Your task to perform on an android device: Go to battery settings Image 0: 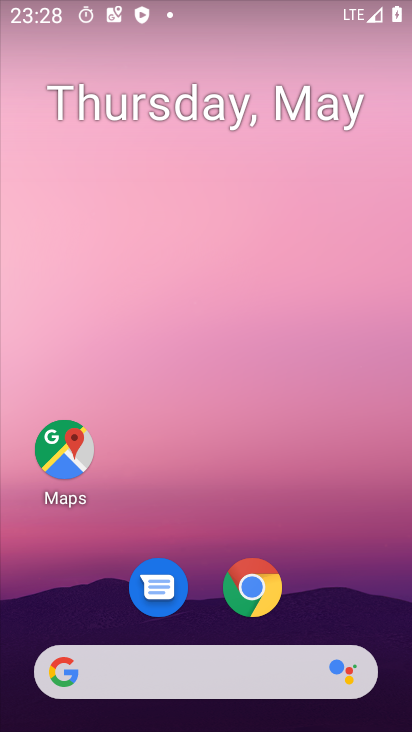
Step 0: drag from (342, 638) to (362, 33)
Your task to perform on an android device: Go to battery settings Image 1: 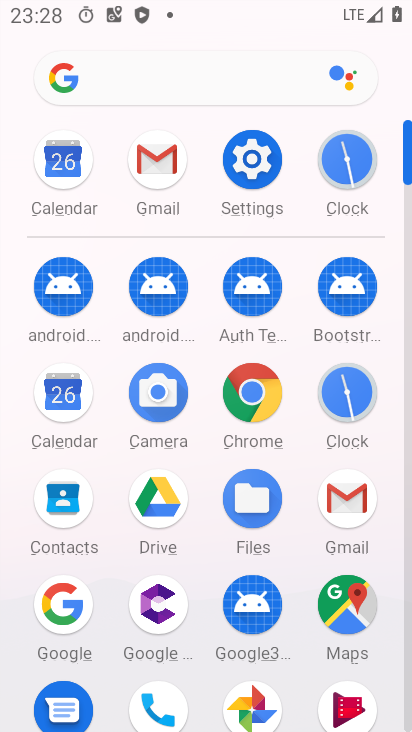
Step 1: click (253, 163)
Your task to perform on an android device: Go to battery settings Image 2: 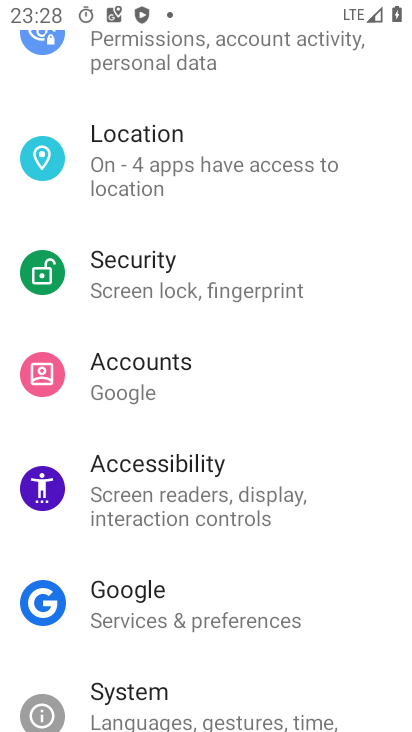
Step 2: drag from (243, 286) to (243, 549)
Your task to perform on an android device: Go to battery settings Image 3: 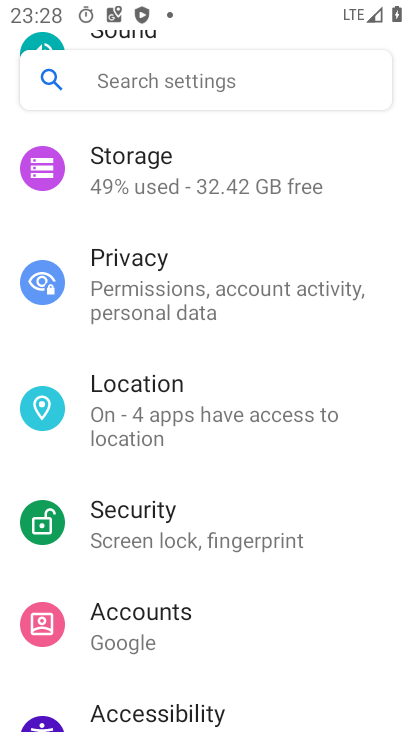
Step 3: drag from (226, 300) to (245, 539)
Your task to perform on an android device: Go to battery settings Image 4: 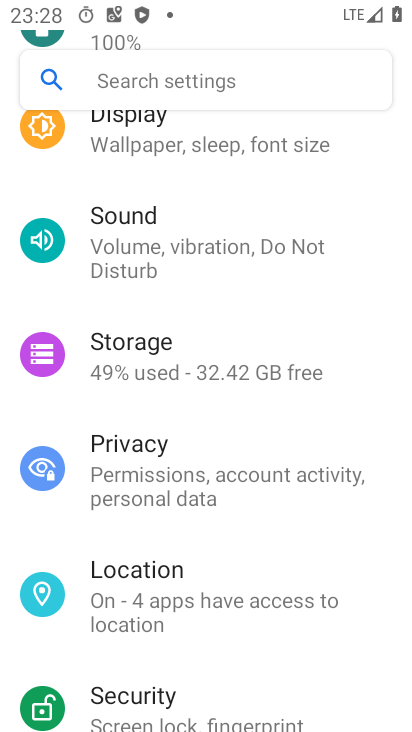
Step 4: drag from (210, 257) to (226, 548)
Your task to perform on an android device: Go to battery settings Image 5: 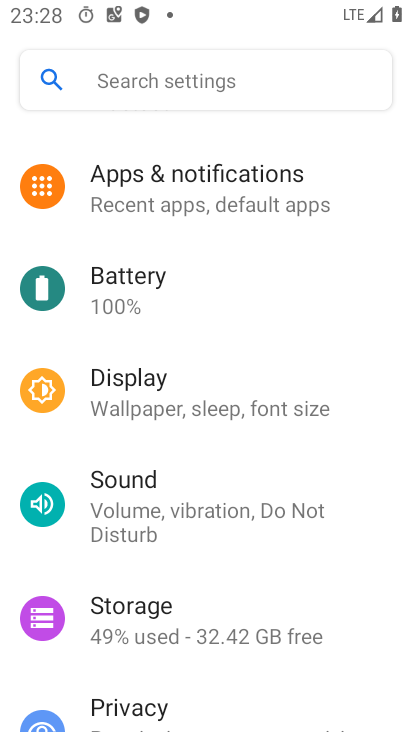
Step 5: click (114, 298)
Your task to perform on an android device: Go to battery settings Image 6: 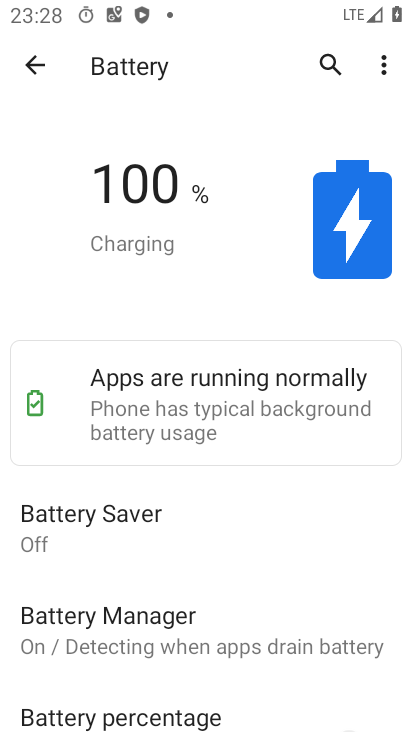
Step 6: task complete